Your task to perform on an android device: Clear the cart on target. Add "logitech g pro" to the cart on target Image 0: 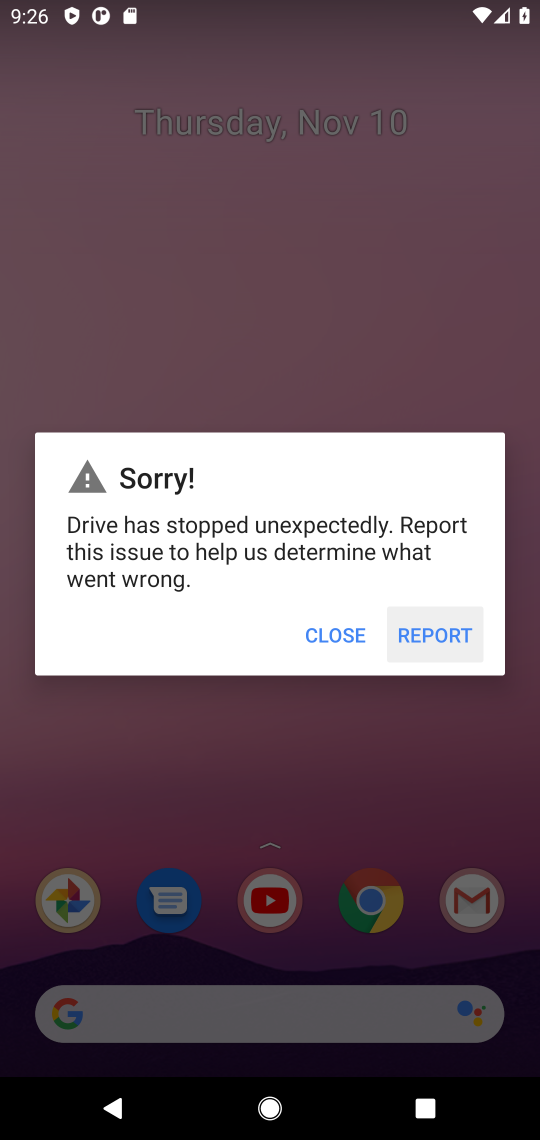
Step 0: press home button
Your task to perform on an android device: Clear the cart on target. Add "logitech g pro" to the cart on target Image 1: 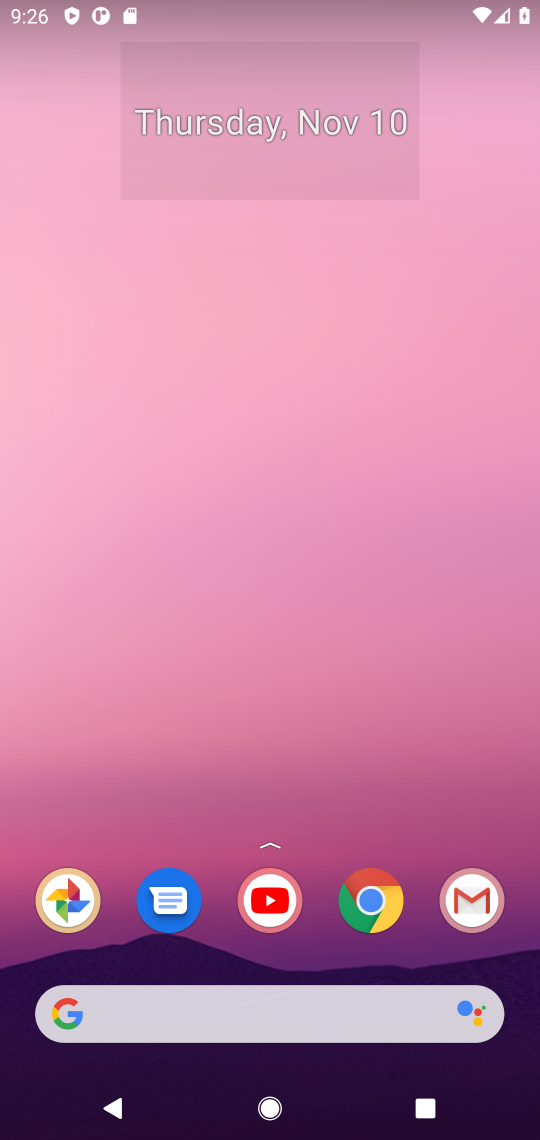
Step 1: click (375, 896)
Your task to perform on an android device: Clear the cart on target. Add "logitech g pro" to the cart on target Image 2: 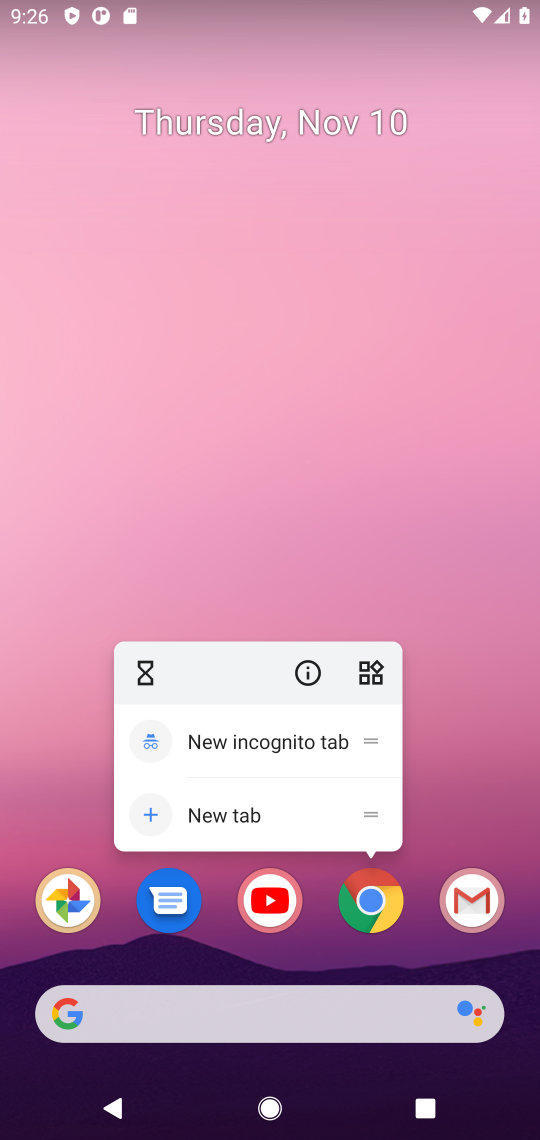
Step 2: click (375, 898)
Your task to perform on an android device: Clear the cart on target. Add "logitech g pro" to the cart on target Image 3: 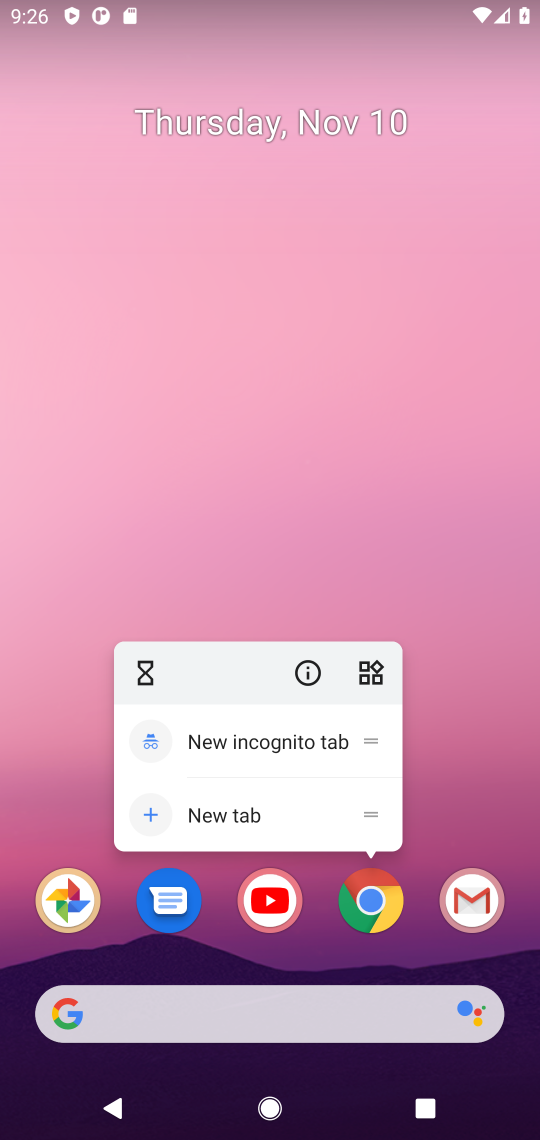
Step 3: click (371, 905)
Your task to perform on an android device: Clear the cart on target. Add "logitech g pro" to the cart on target Image 4: 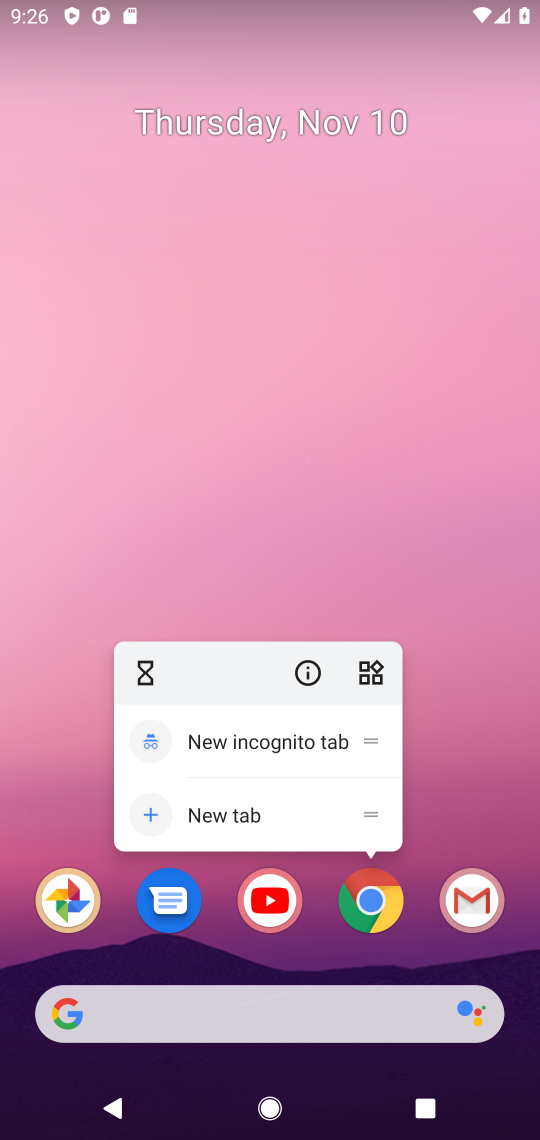
Step 4: click (369, 906)
Your task to perform on an android device: Clear the cart on target. Add "logitech g pro" to the cart on target Image 5: 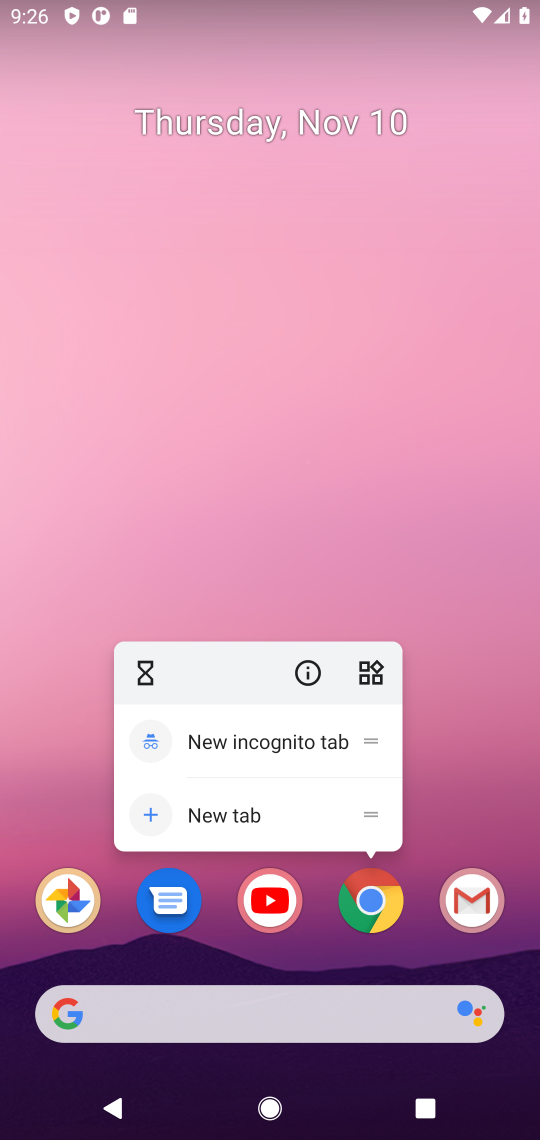
Step 5: click (369, 906)
Your task to perform on an android device: Clear the cart on target. Add "logitech g pro" to the cart on target Image 6: 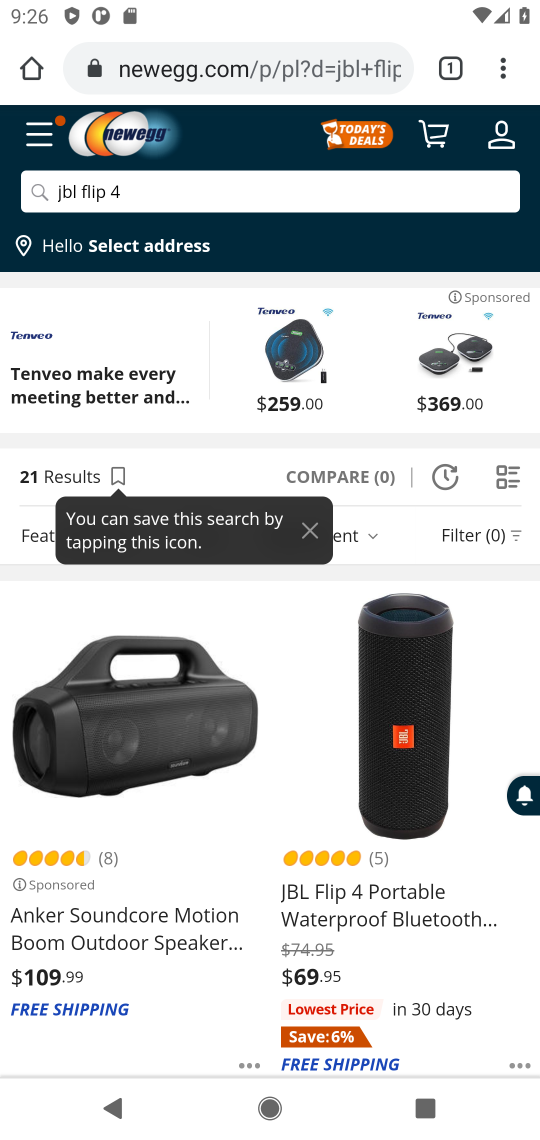
Step 6: click (245, 66)
Your task to perform on an android device: Clear the cart on target. Add "logitech g pro" to the cart on target Image 7: 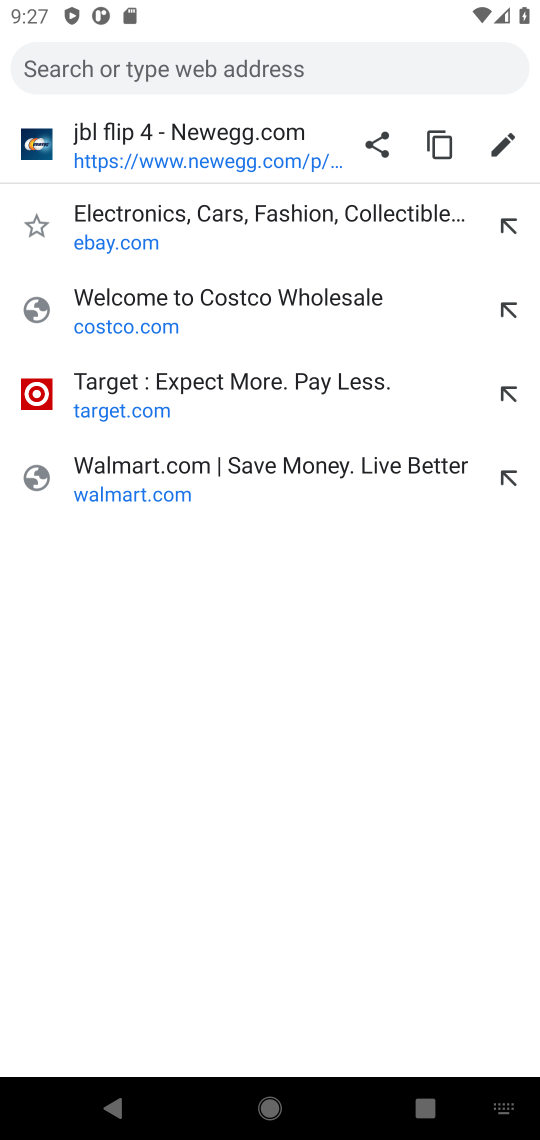
Step 7: click (94, 380)
Your task to perform on an android device: Clear the cart on target. Add "logitech g pro" to the cart on target Image 8: 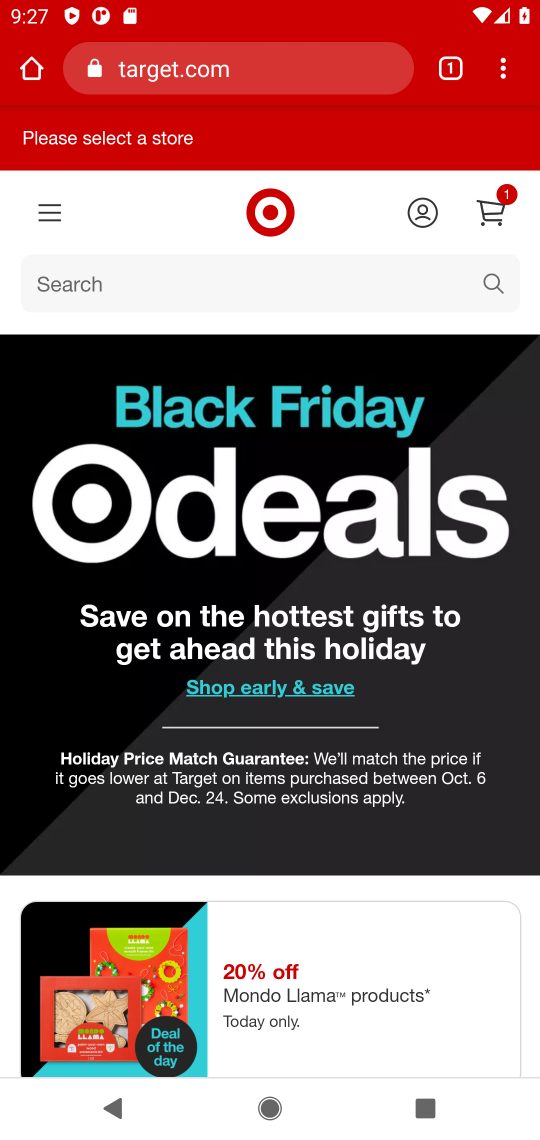
Step 8: click (127, 282)
Your task to perform on an android device: Clear the cart on target. Add "logitech g pro" to the cart on target Image 9: 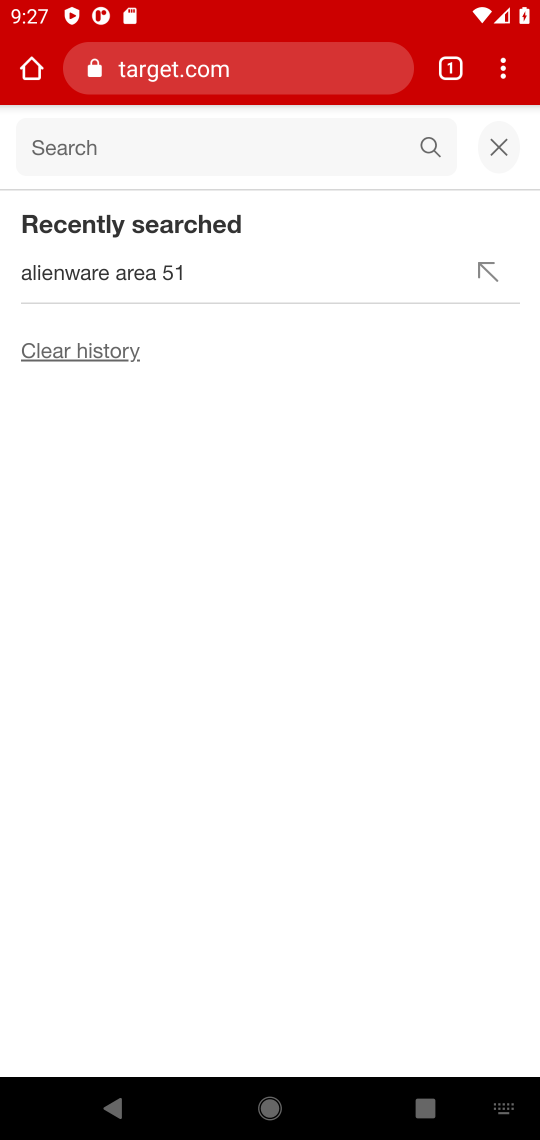
Step 9: type "logitech g pro"
Your task to perform on an android device: Clear the cart on target. Add "logitech g pro" to the cart on target Image 10: 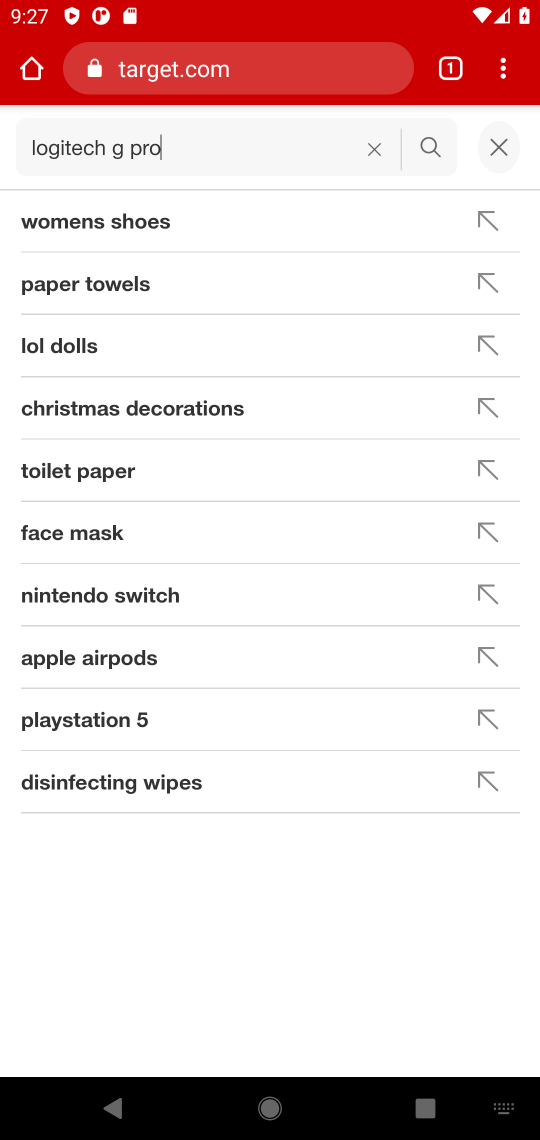
Step 10: press enter
Your task to perform on an android device: Clear the cart on target. Add "logitech g pro" to the cart on target Image 11: 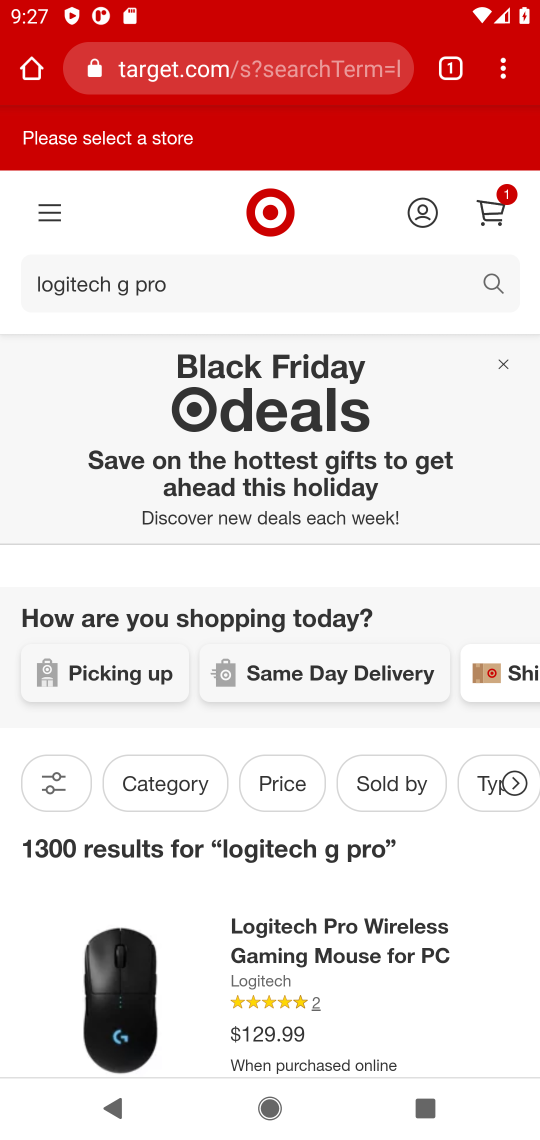
Step 11: task complete